Your task to perform on an android device: turn off javascript in the chrome app Image 0: 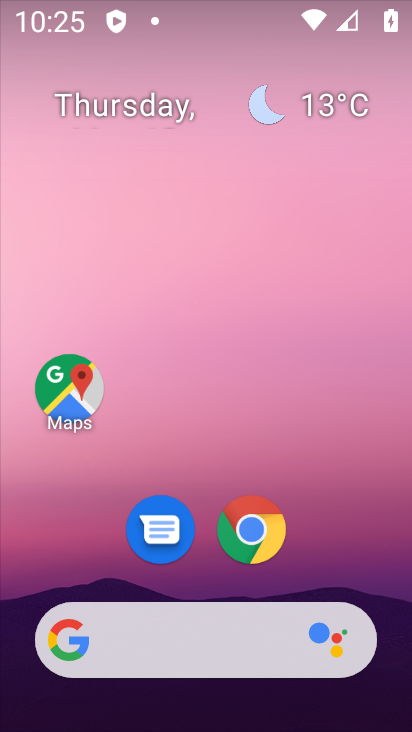
Step 0: click (232, 547)
Your task to perform on an android device: turn off javascript in the chrome app Image 1: 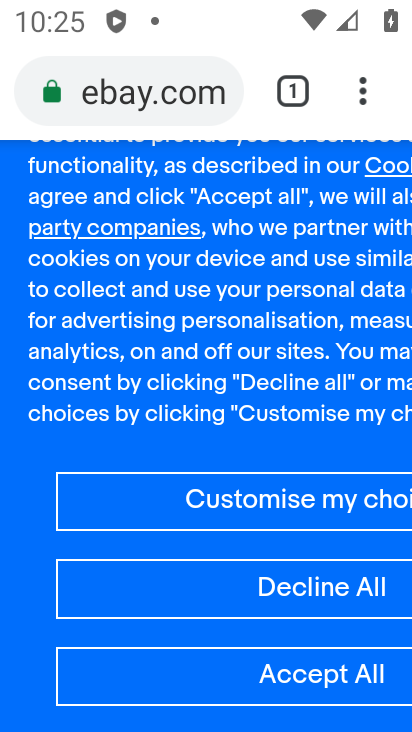
Step 1: click (353, 89)
Your task to perform on an android device: turn off javascript in the chrome app Image 2: 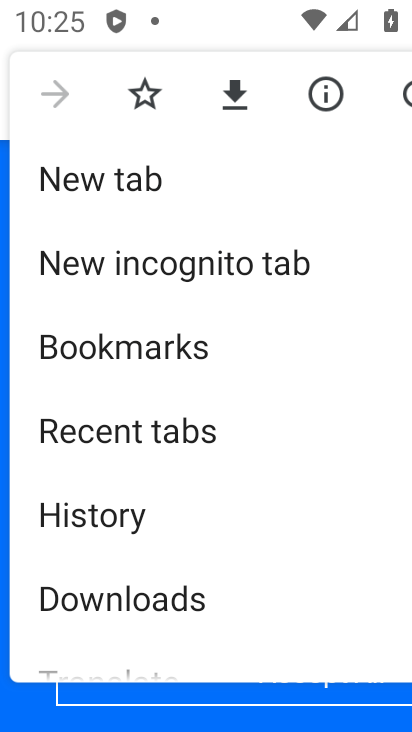
Step 2: drag from (196, 586) to (203, 216)
Your task to perform on an android device: turn off javascript in the chrome app Image 3: 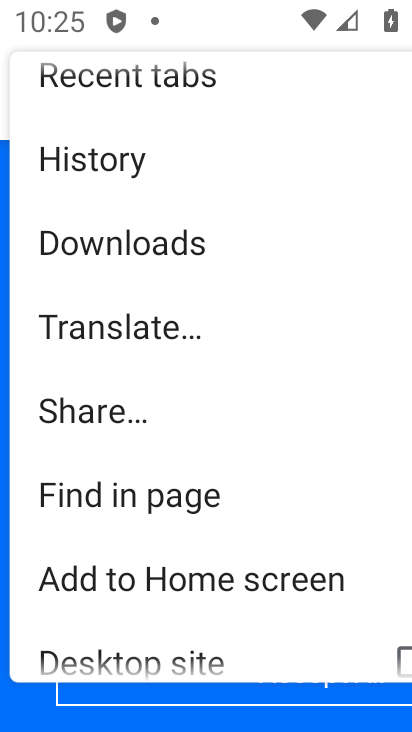
Step 3: drag from (145, 578) to (169, 298)
Your task to perform on an android device: turn off javascript in the chrome app Image 4: 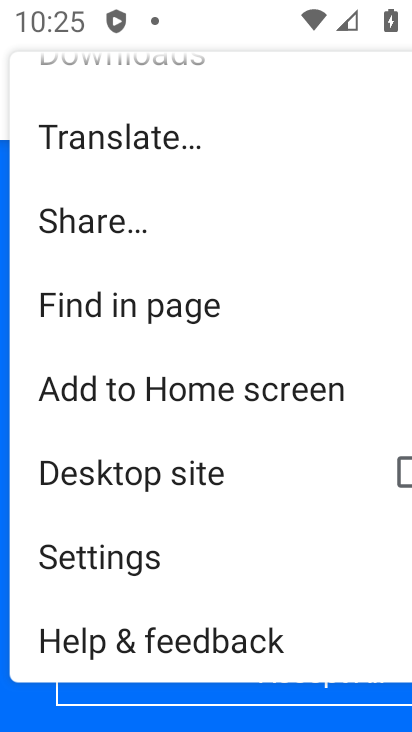
Step 4: click (136, 564)
Your task to perform on an android device: turn off javascript in the chrome app Image 5: 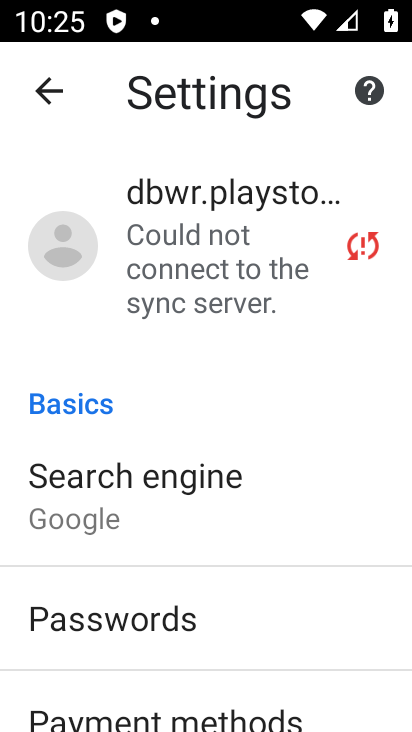
Step 5: drag from (89, 683) to (79, 493)
Your task to perform on an android device: turn off javascript in the chrome app Image 6: 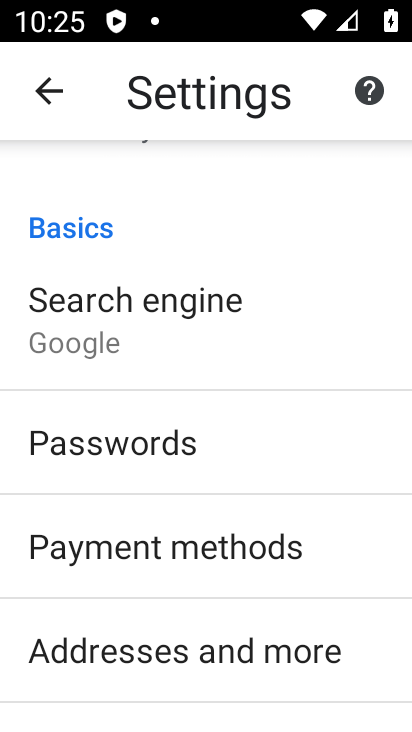
Step 6: drag from (55, 671) to (91, 505)
Your task to perform on an android device: turn off javascript in the chrome app Image 7: 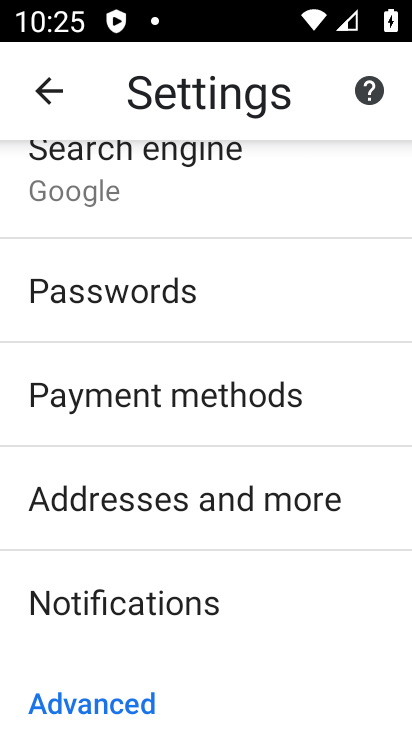
Step 7: drag from (148, 642) to (195, 413)
Your task to perform on an android device: turn off javascript in the chrome app Image 8: 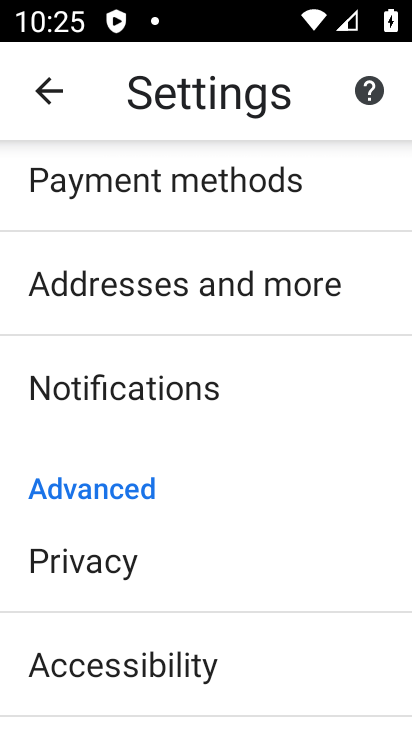
Step 8: drag from (202, 564) to (197, 400)
Your task to perform on an android device: turn off javascript in the chrome app Image 9: 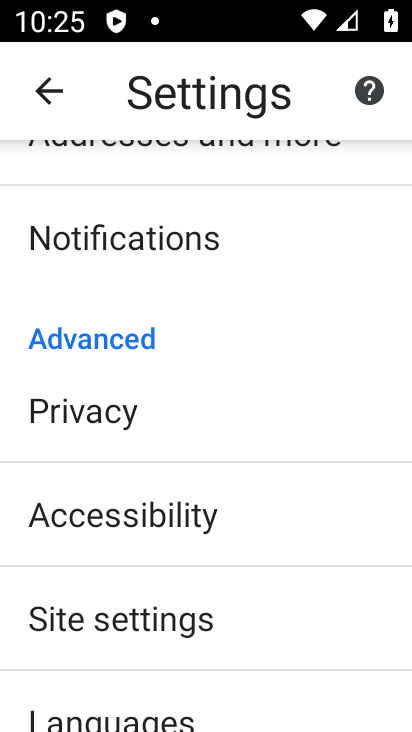
Step 9: click (198, 614)
Your task to perform on an android device: turn off javascript in the chrome app Image 10: 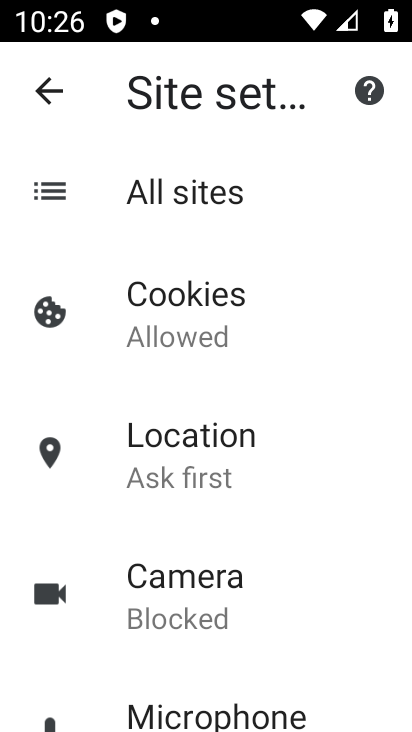
Step 10: drag from (176, 641) to (171, 510)
Your task to perform on an android device: turn off javascript in the chrome app Image 11: 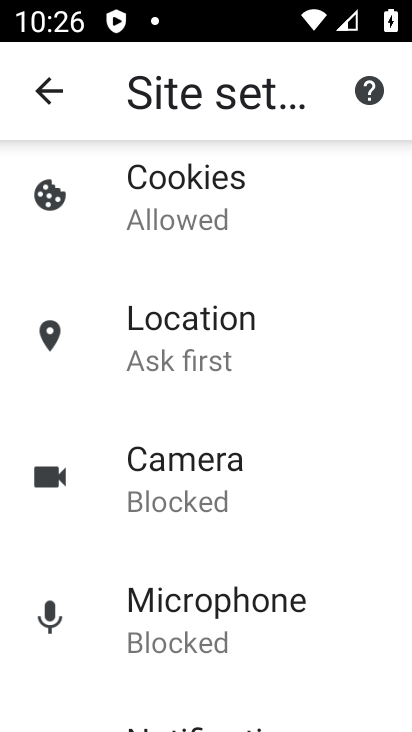
Step 11: drag from (169, 622) to (191, 476)
Your task to perform on an android device: turn off javascript in the chrome app Image 12: 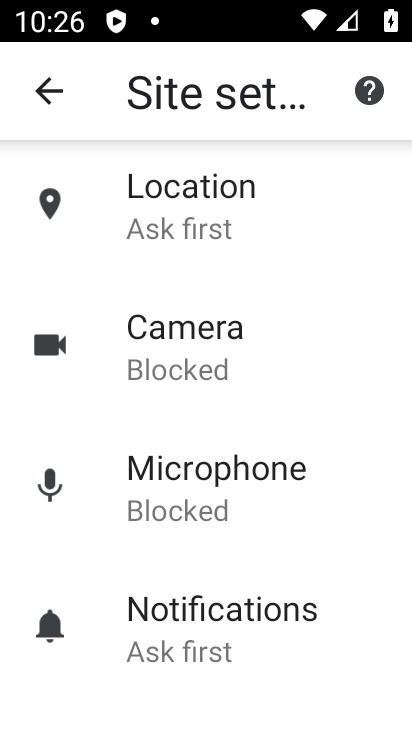
Step 12: drag from (199, 625) to (195, 522)
Your task to perform on an android device: turn off javascript in the chrome app Image 13: 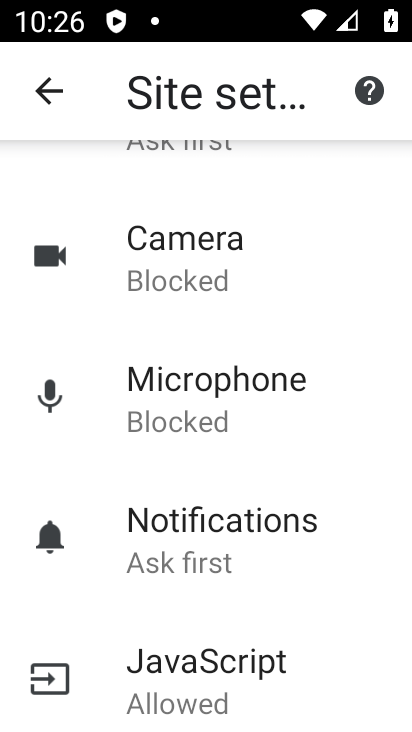
Step 13: click (176, 659)
Your task to perform on an android device: turn off javascript in the chrome app Image 14: 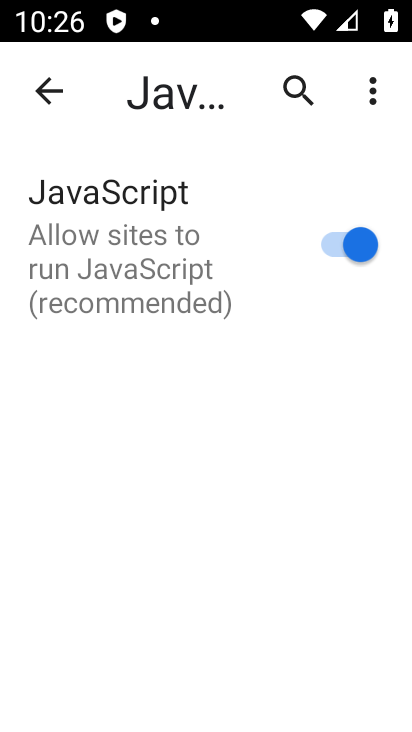
Step 14: click (351, 246)
Your task to perform on an android device: turn off javascript in the chrome app Image 15: 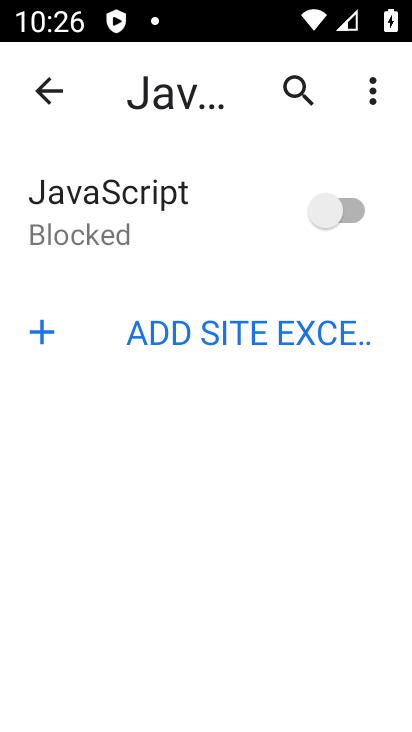
Step 15: task complete